Your task to perform on an android device: clear history in the chrome app Image 0: 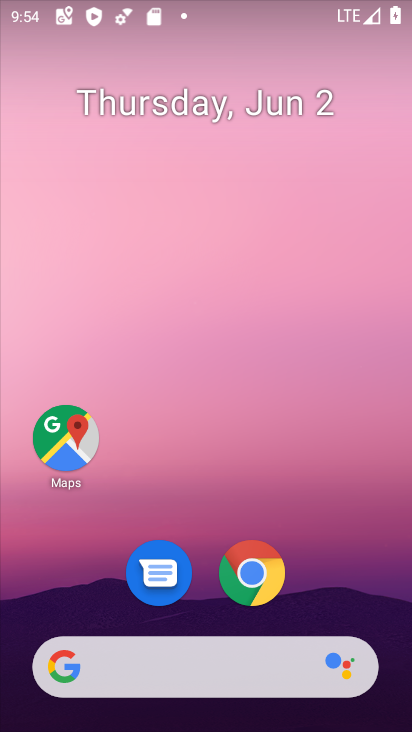
Step 0: click (260, 568)
Your task to perform on an android device: clear history in the chrome app Image 1: 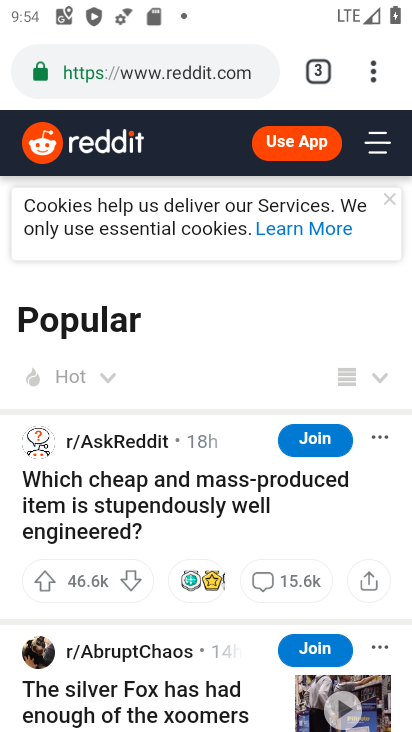
Step 1: click (378, 74)
Your task to perform on an android device: clear history in the chrome app Image 2: 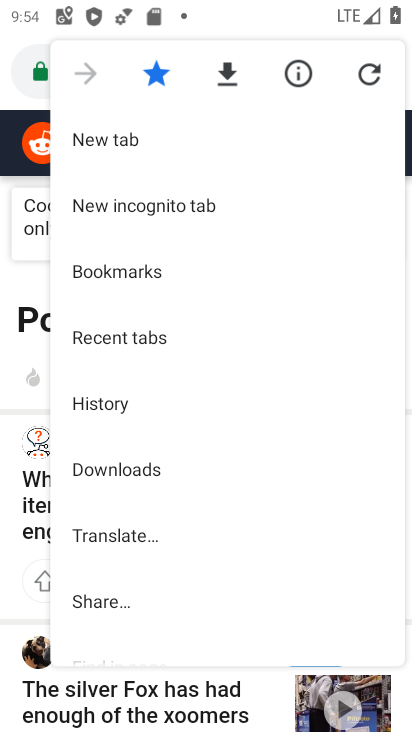
Step 2: click (133, 401)
Your task to perform on an android device: clear history in the chrome app Image 3: 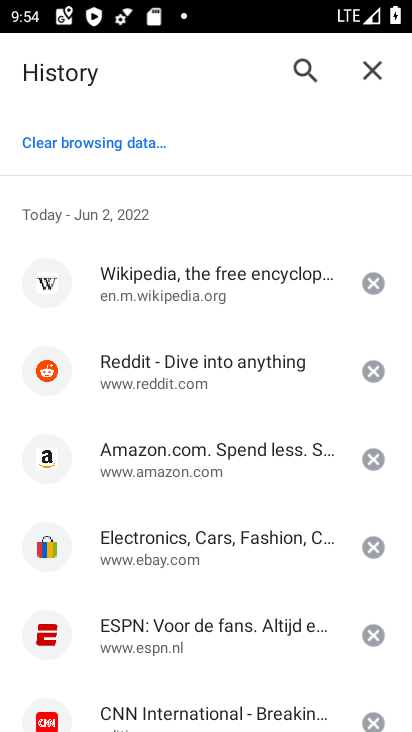
Step 3: click (105, 137)
Your task to perform on an android device: clear history in the chrome app Image 4: 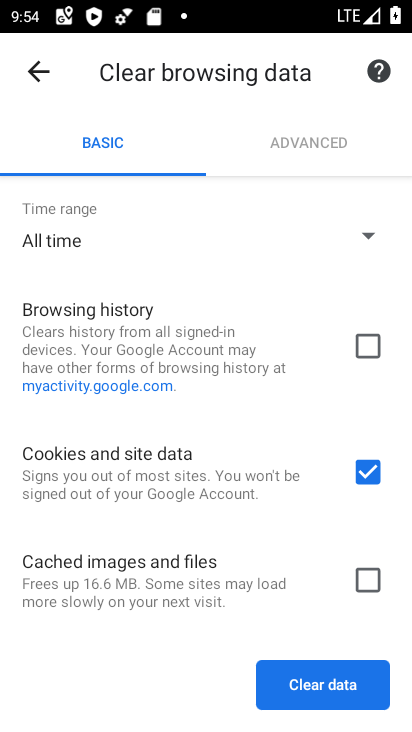
Step 4: click (369, 337)
Your task to perform on an android device: clear history in the chrome app Image 5: 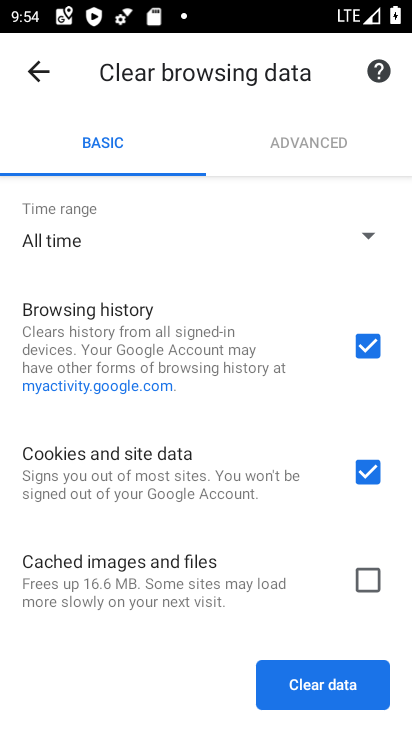
Step 5: click (381, 577)
Your task to perform on an android device: clear history in the chrome app Image 6: 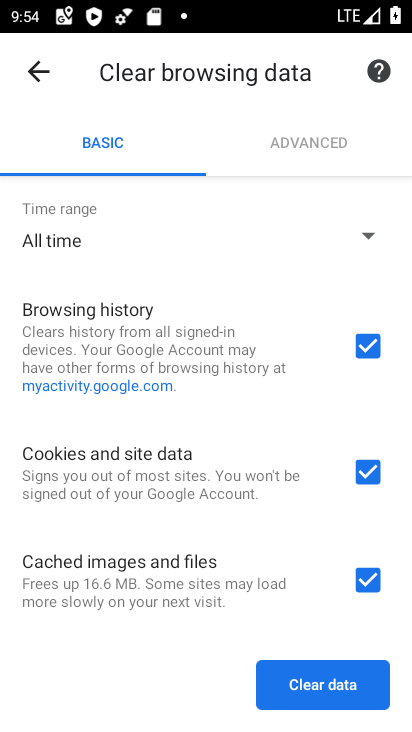
Step 6: click (313, 685)
Your task to perform on an android device: clear history in the chrome app Image 7: 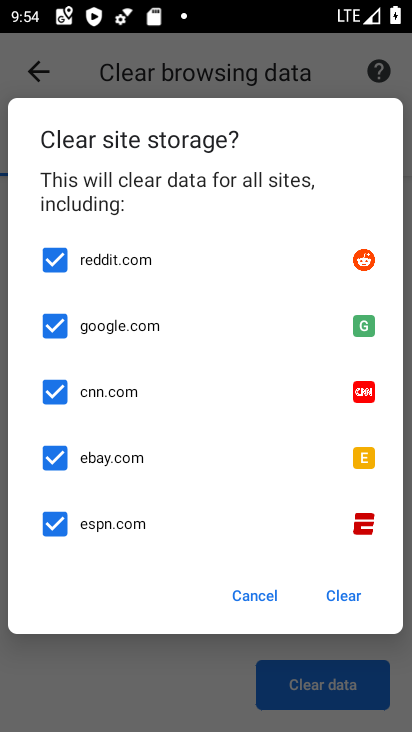
Step 7: click (342, 593)
Your task to perform on an android device: clear history in the chrome app Image 8: 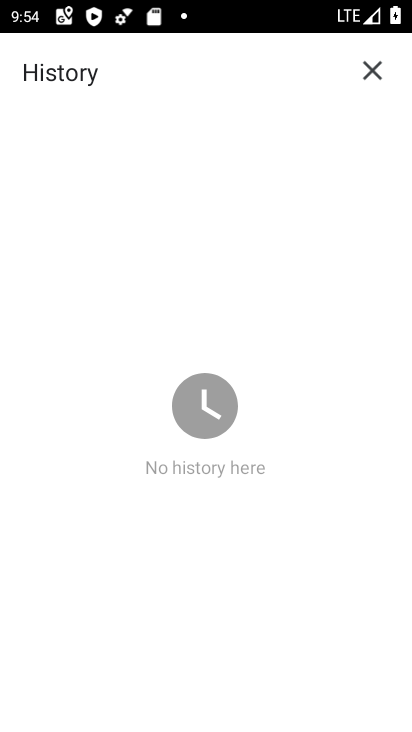
Step 8: task complete